Your task to perform on an android device: Open calendar and show me the fourth week of next month Image 0: 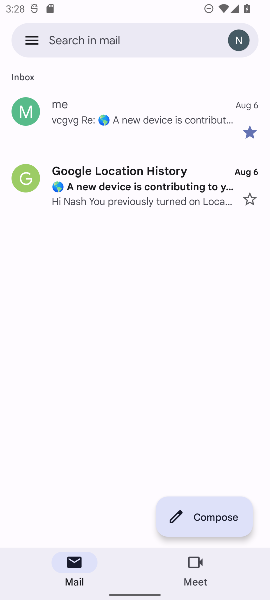
Step 0: press back button
Your task to perform on an android device: Open calendar and show me the fourth week of next month Image 1: 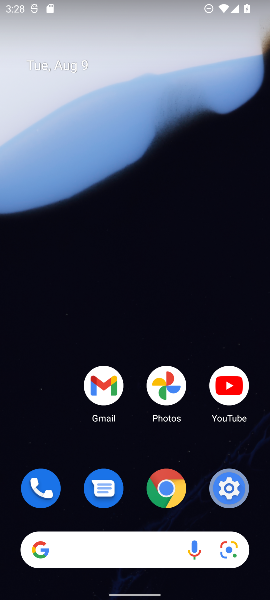
Step 1: press home button
Your task to perform on an android device: Open calendar and show me the fourth week of next month Image 2: 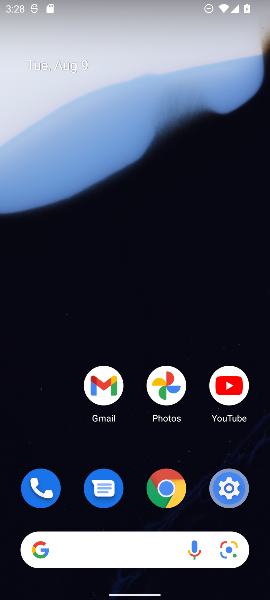
Step 2: drag from (195, 354) to (127, 16)
Your task to perform on an android device: Open calendar and show me the fourth week of next month Image 3: 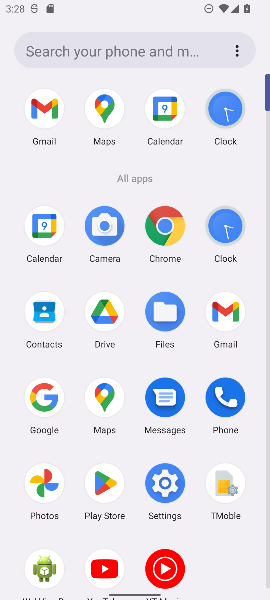
Step 3: click (166, 104)
Your task to perform on an android device: Open calendar and show me the fourth week of next month Image 4: 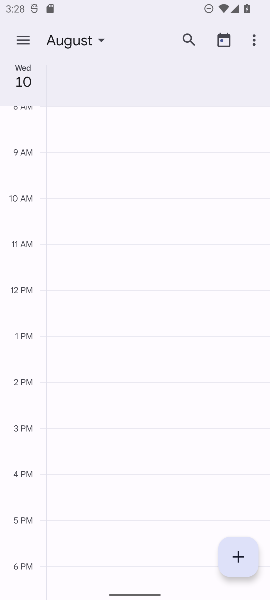
Step 4: click (19, 36)
Your task to perform on an android device: Open calendar and show me the fourth week of next month Image 5: 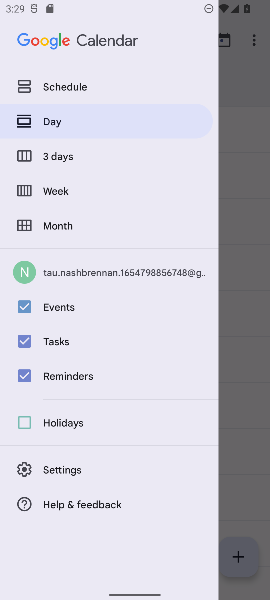
Step 5: click (63, 185)
Your task to perform on an android device: Open calendar and show me the fourth week of next month Image 6: 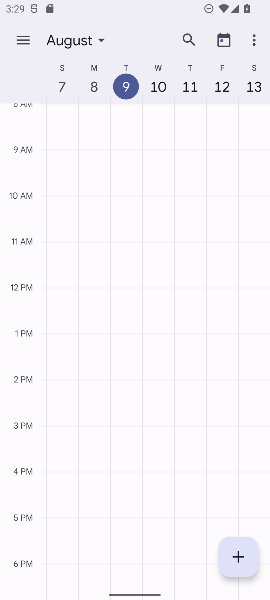
Step 6: click (78, 48)
Your task to perform on an android device: Open calendar and show me the fourth week of next month Image 7: 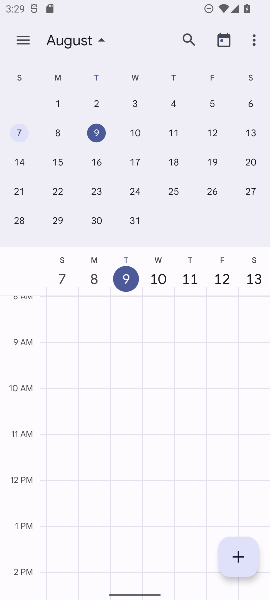
Step 7: drag from (233, 163) to (0, 132)
Your task to perform on an android device: Open calendar and show me the fourth week of next month Image 8: 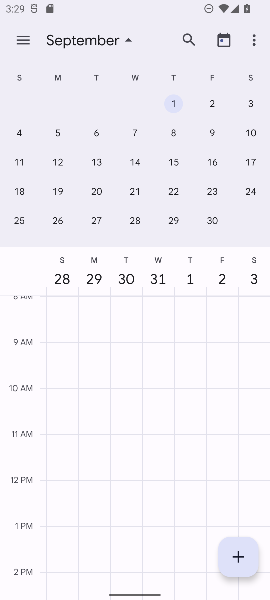
Step 8: click (136, 226)
Your task to perform on an android device: Open calendar and show me the fourth week of next month Image 9: 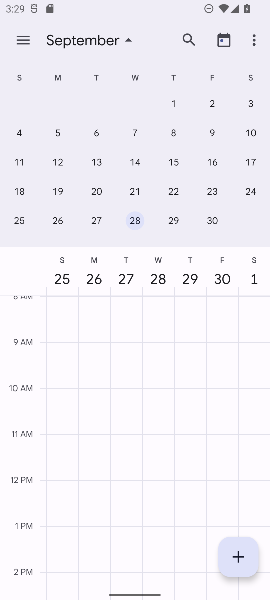
Step 9: task complete